Your task to perform on an android device: What is the recent news? Image 0: 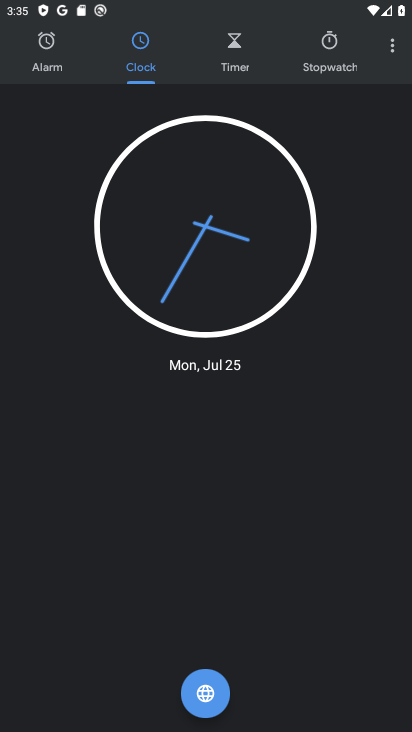
Step 0: press home button
Your task to perform on an android device: What is the recent news? Image 1: 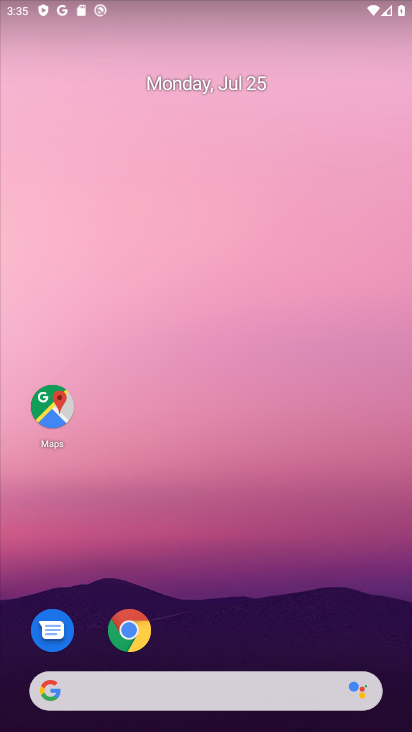
Step 1: drag from (199, 695) to (192, 191)
Your task to perform on an android device: What is the recent news? Image 2: 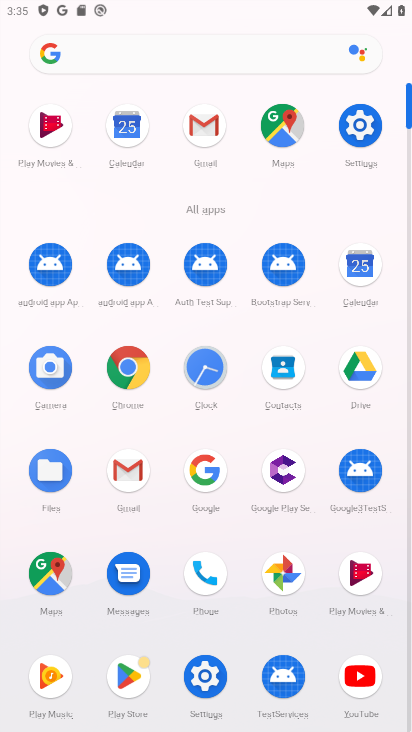
Step 2: click (205, 470)
Your task to perform on an android device: What is the recent news? Image 3: 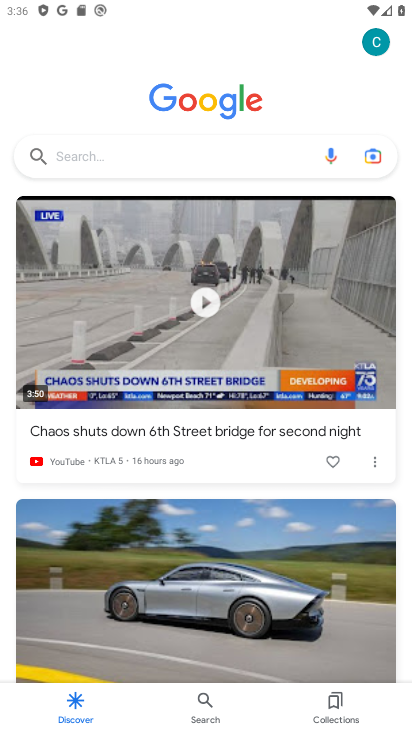
Step 3: click (188, 153)
Your task to perform on an android device: What is the recent news? Image 4: 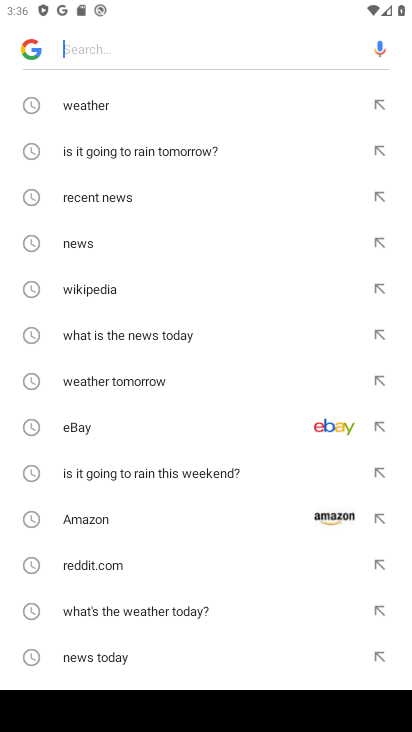
Step 4: click (120, 199)
Your task to perform on an android device: What is the recent news? Image 5: 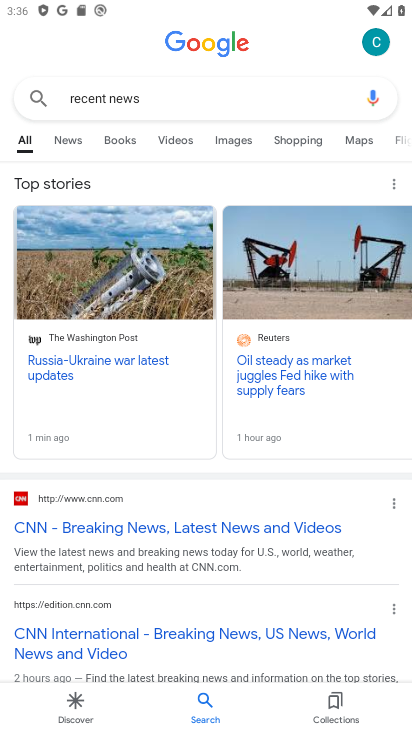
Step 5: click (104, 360)
Your task to perform on an android device: What is the recent news? Image 6: 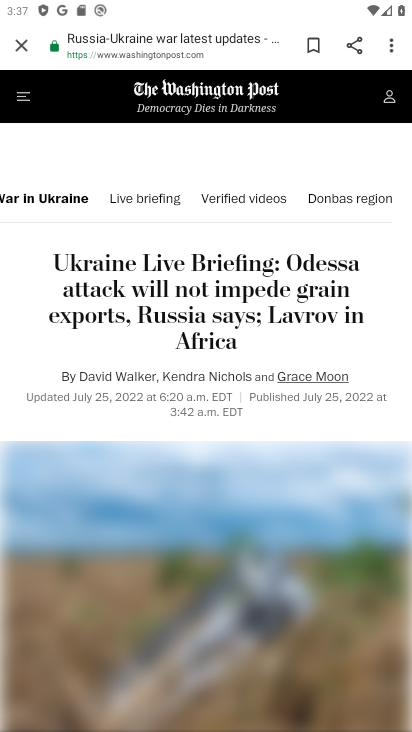
Step 6: task complete